Your task to perform on an android device: turn on bluetooth scan Image 0: 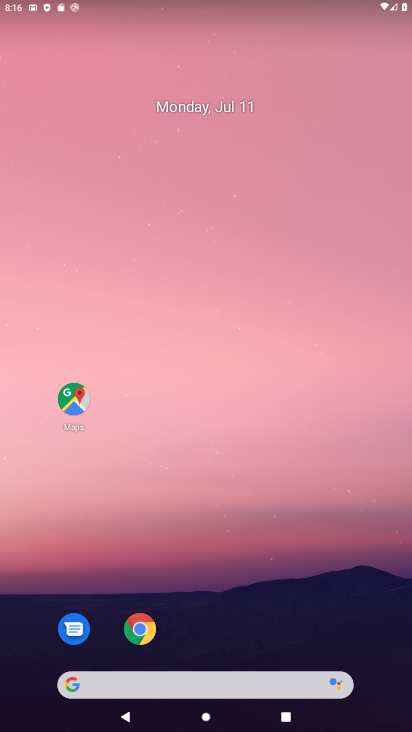
Step 0: drag from (197, 494) to (319, 18)
Your task to perform on an android device: turn on bluetooth scan Image 1: 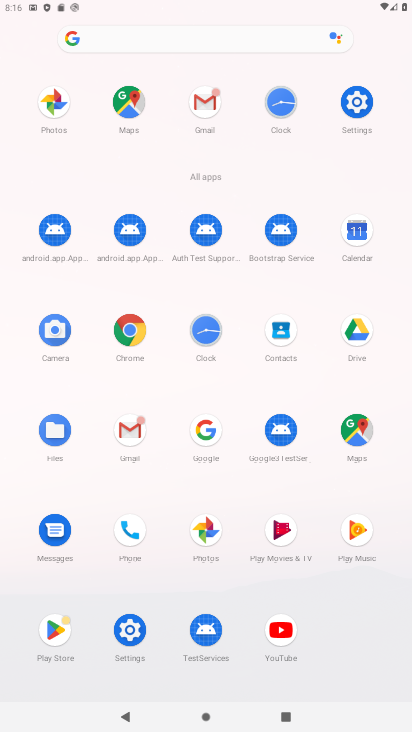
Step 1: click (350, 97)
Your task to perform on an android device: turn on bluetooth scan Image 2: 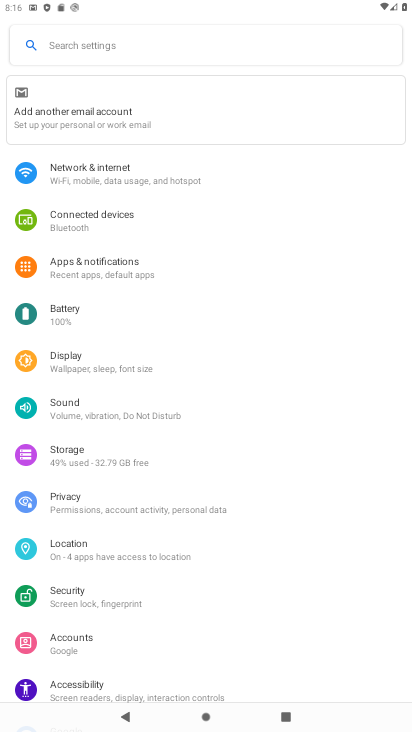
Step 2: click (93, 549)
Your task to perform on an android device: turn on bluetooth scan Image 3: 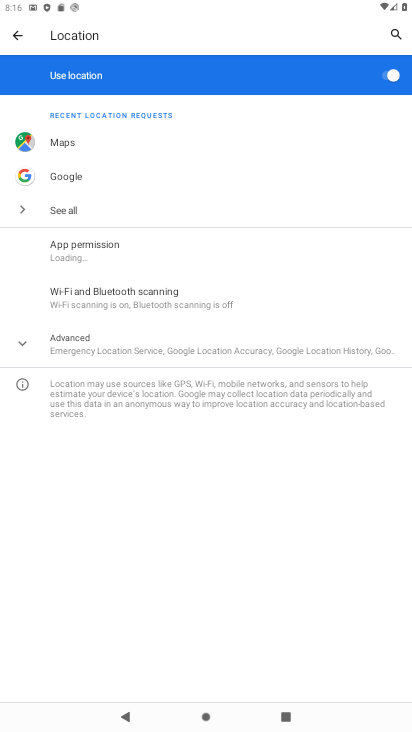
Step 3: click (138, 304)
Your task to perform on an android device: turn on bluetooth scan Image 4: 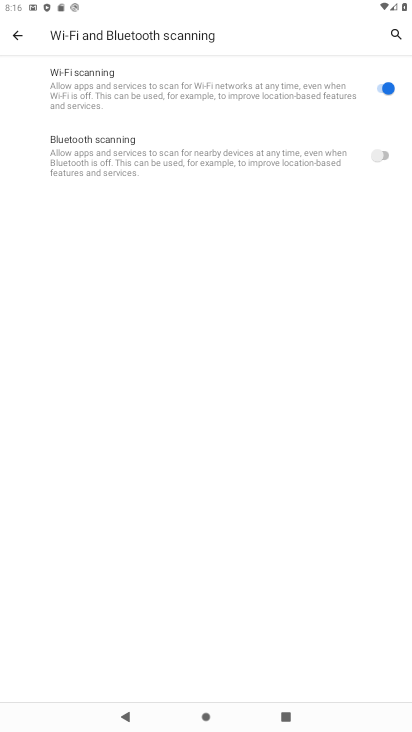
Step 4: click (387, 160)
Your task to perform on an android device: turn on bluetooth scan Image 5: 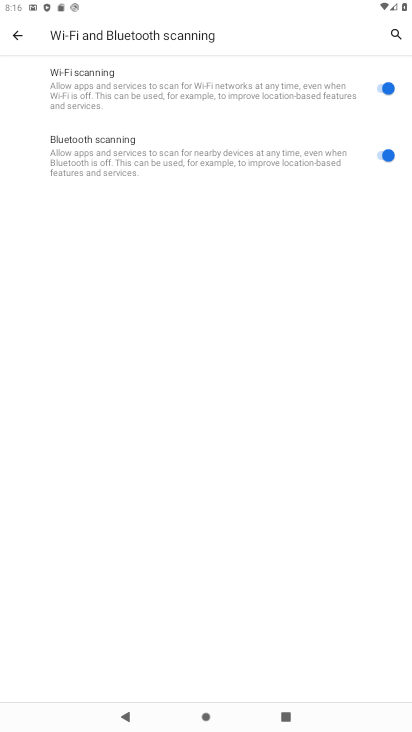
Step 5: task complete